Your task to perform on an android device: Search for "razer blackwidow" on walmart, select the first entry, and add it to the cart. Image 0: 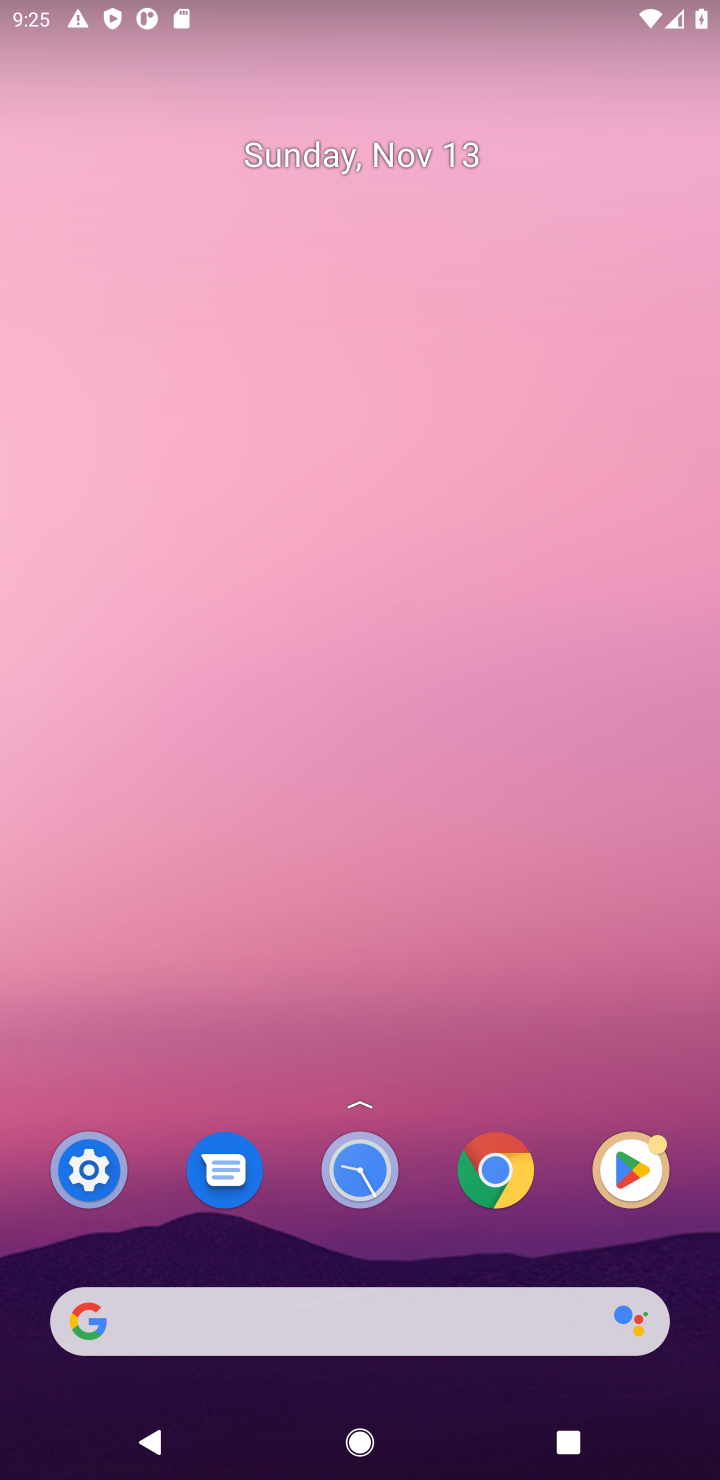
Step 0: click (366, 1334)
Your task to perform on an android device: Search for "razer blackwidow" on walmart, select the first entry, and add it to the cart. Image 1: 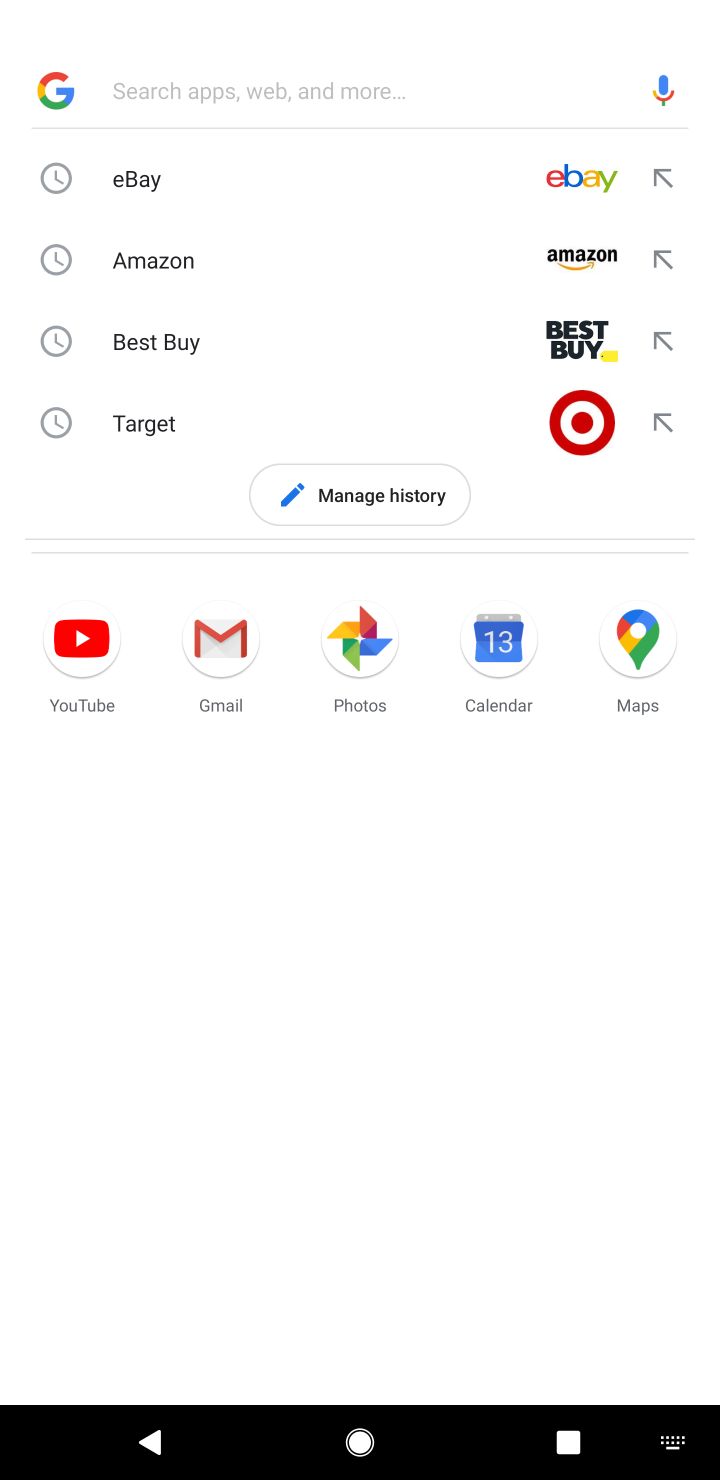
Step 1: type "walmart"
Your task to perform on an android device: Search for "razer blackwidow" on walmart, select the first entry, and add it to the cart. Image 2: 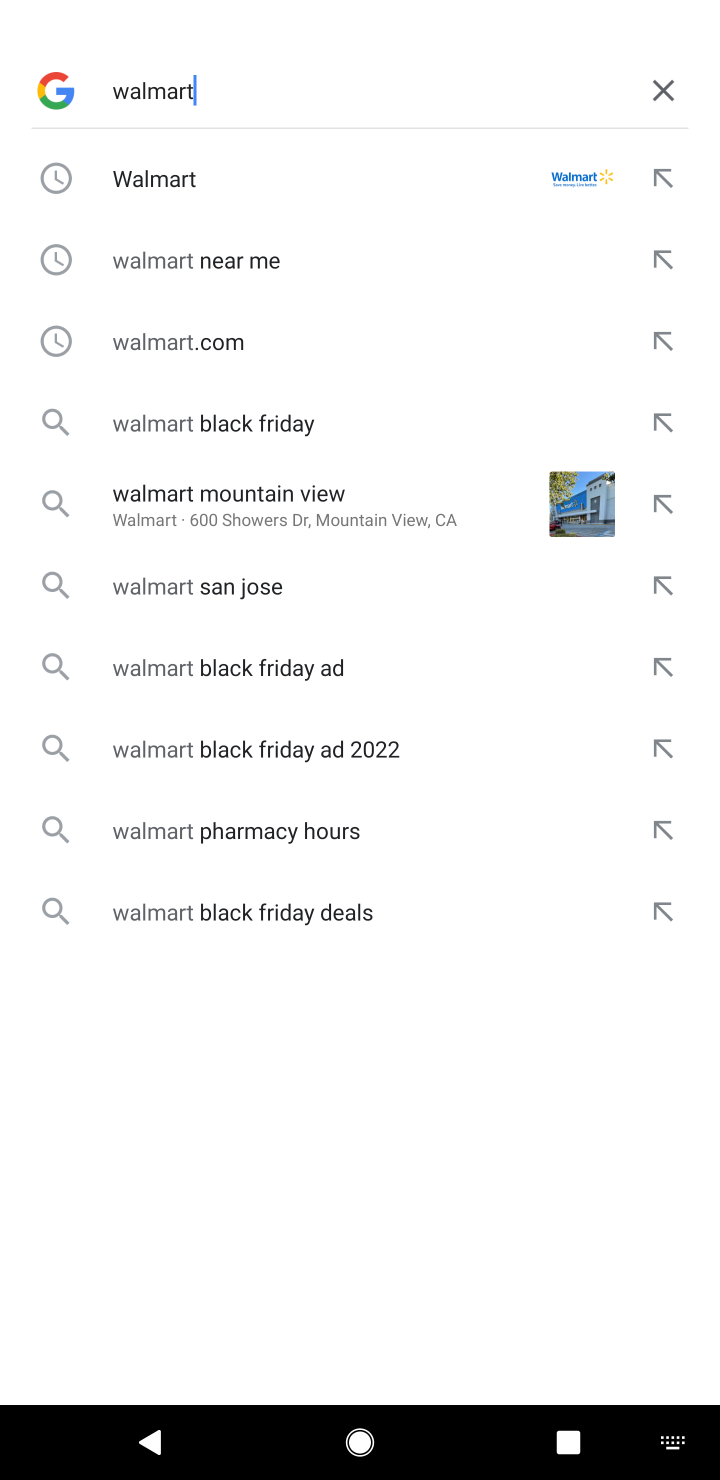
Step 2: click (282, 204)
Your task to perform on an android device: Search for "razer blackwidow" on walmart, select the first entry, and add it to the cart. Image 3: 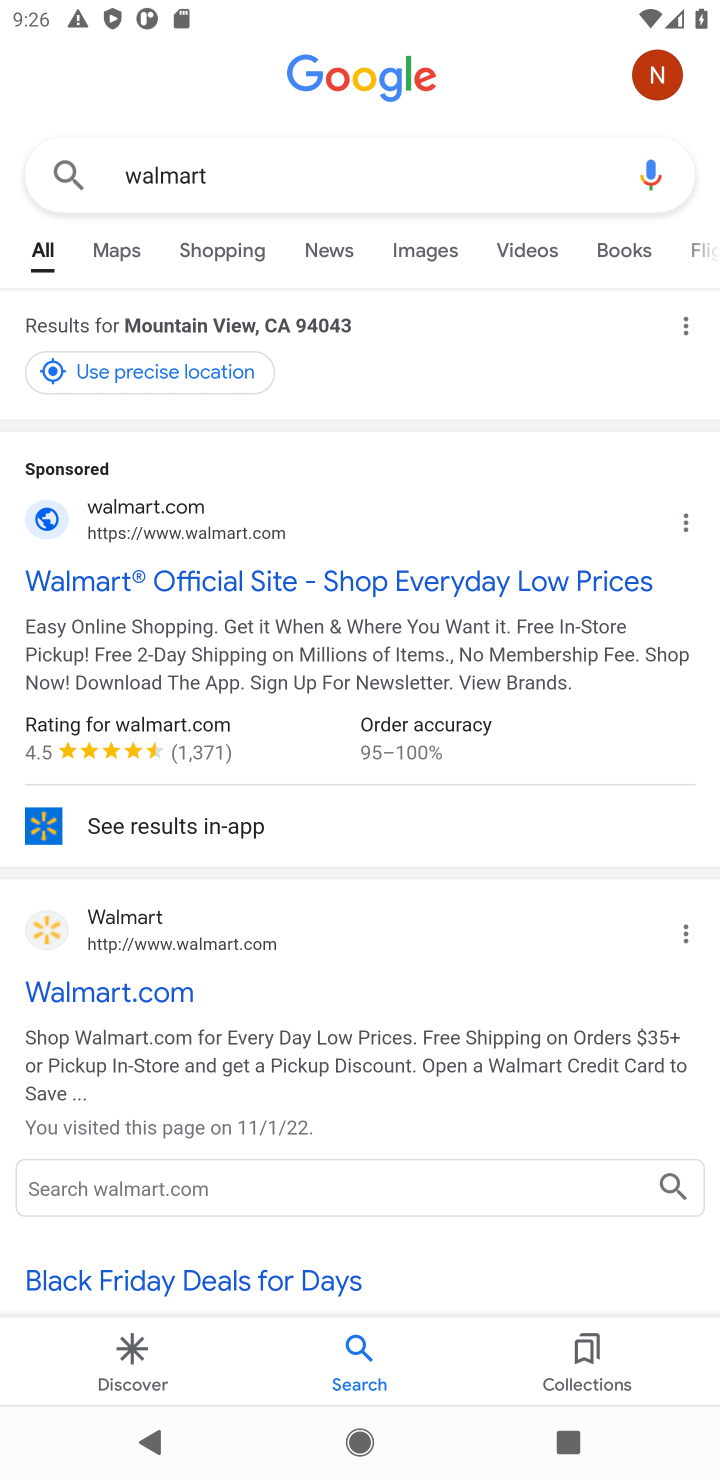
Step 3: click (117, 576)
Your task to perform on an android device: Search for "razer blackwidow" on walmart, select the first entry, and add it to the cart. Image 4: 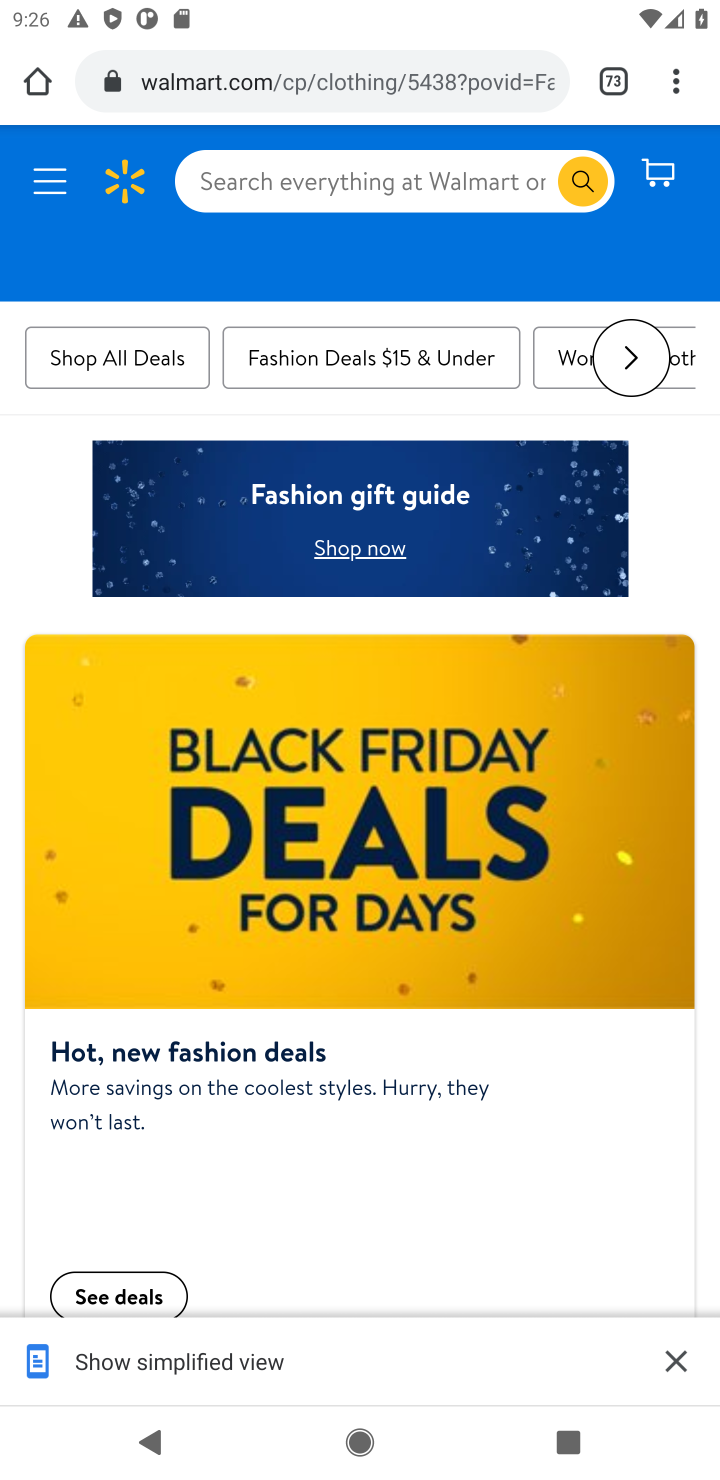
Step 4: task complete